Your task to perform on an android device: choose inbox layout in the gmail app Image 0: 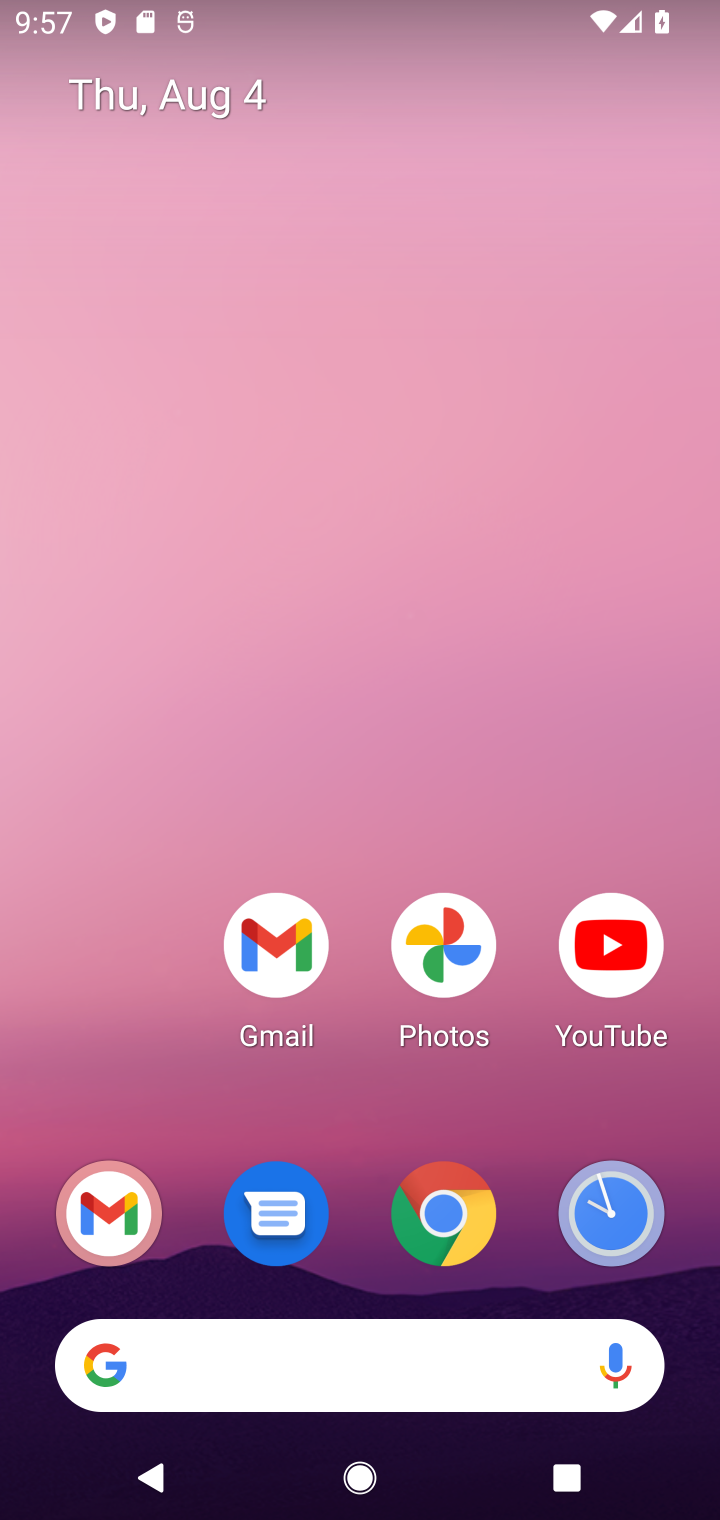
Step 0: click (274, 964)
Your task to perform on an android device: choose inbox layout in the gmail app Image 1: 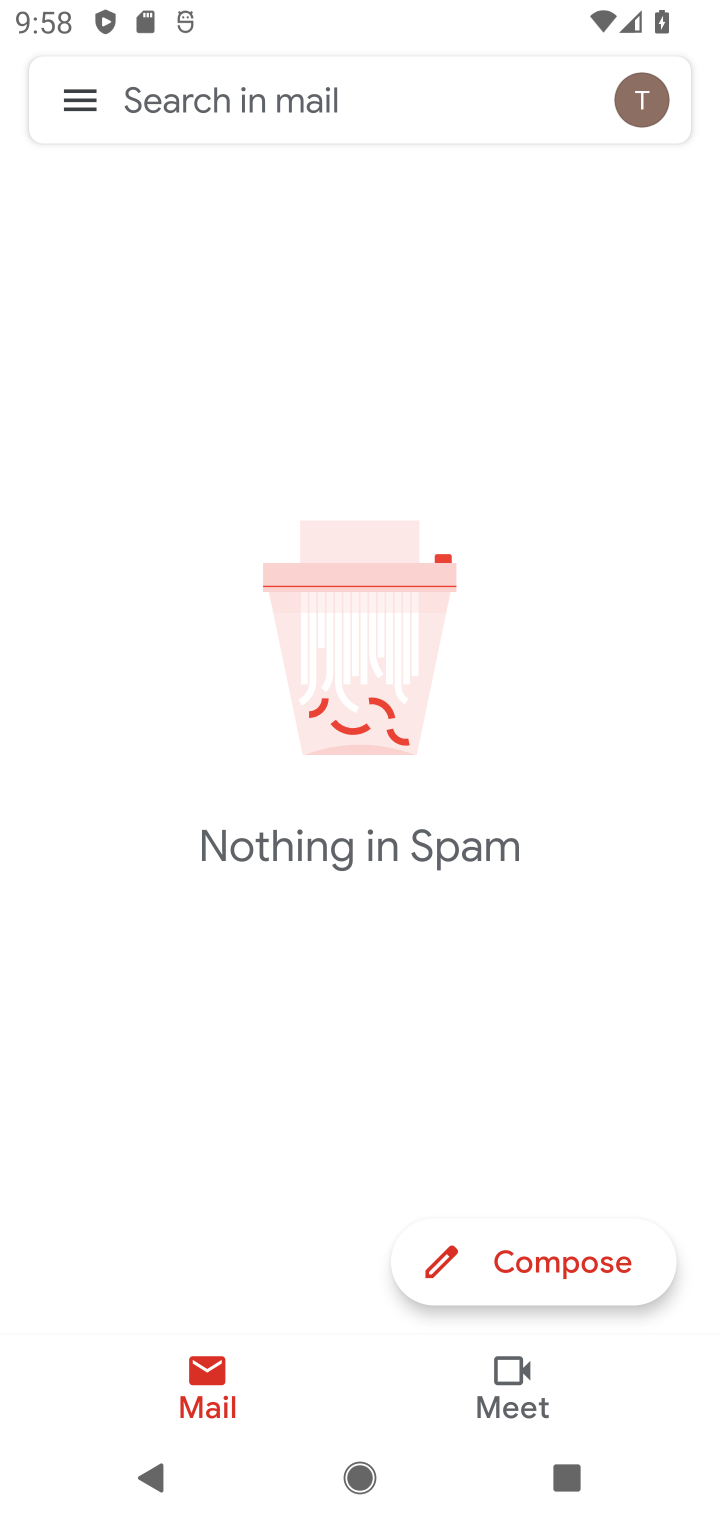
Step 1: click (63, 106)
Your task to perform on an android device: choose inbox layout in the gmail app Image 2: 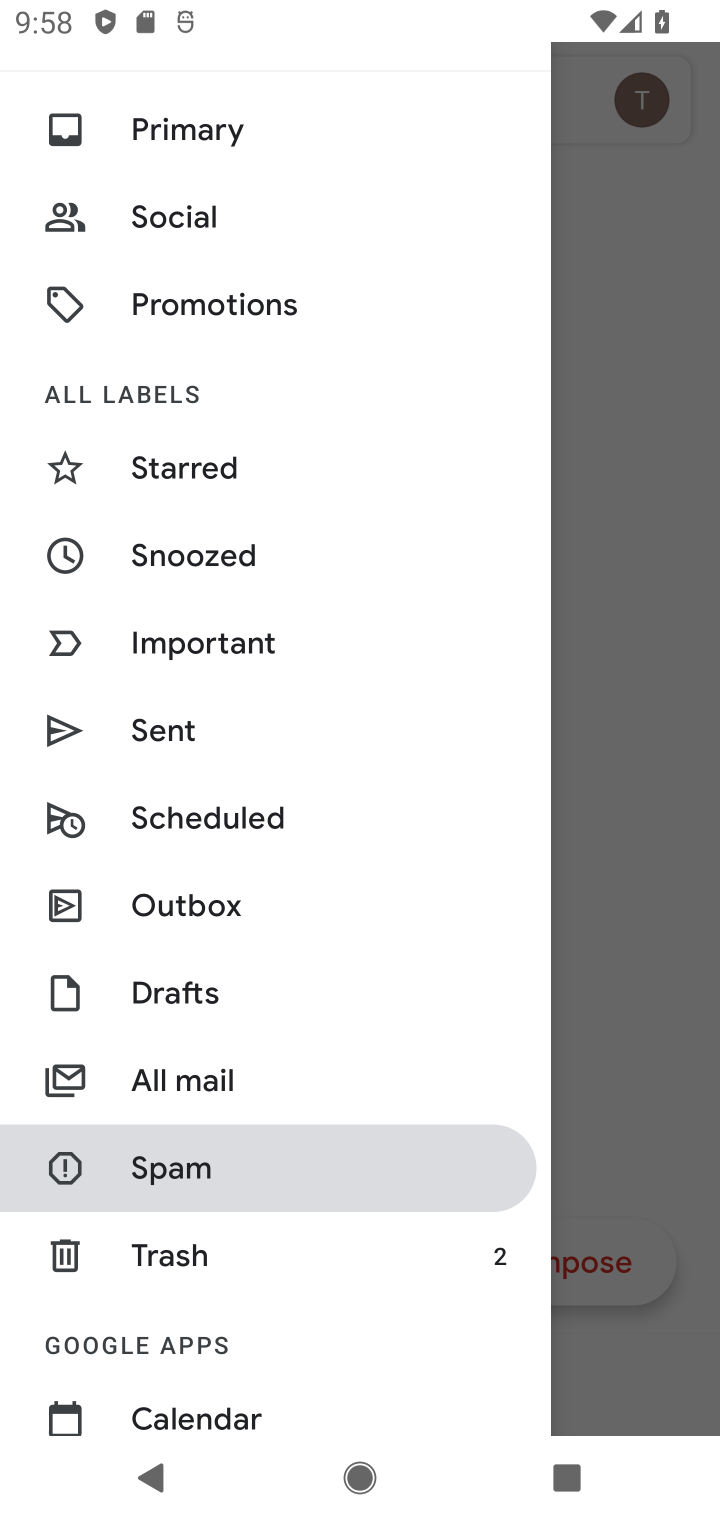
Step 2: drag from (142, 1225) to (228, 325)
Your task to perform on an android device: choose inbox layout in the gmail app Image 3: 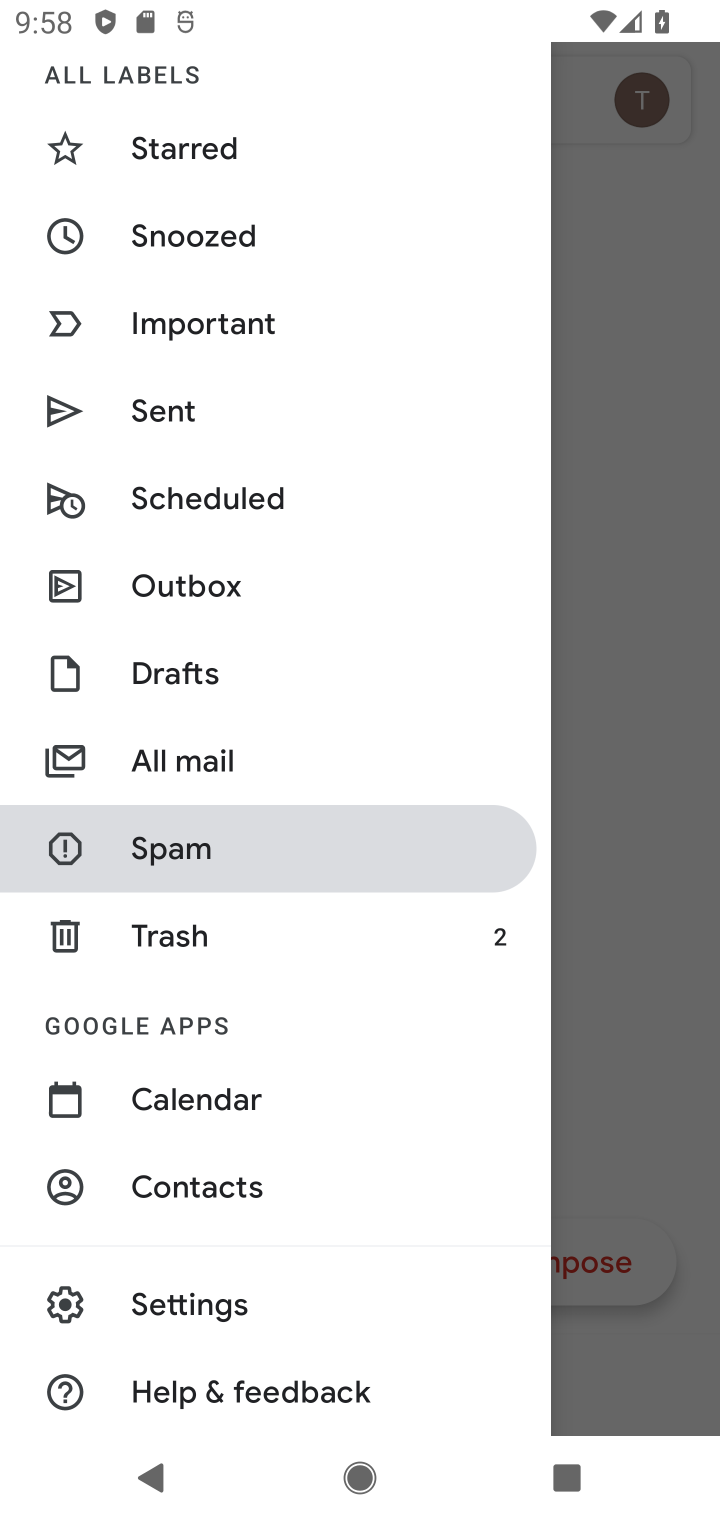
Step 3: click (208, 1310)
Your task to perform on an android device: choose inbox layout in the gmail app Image 4: 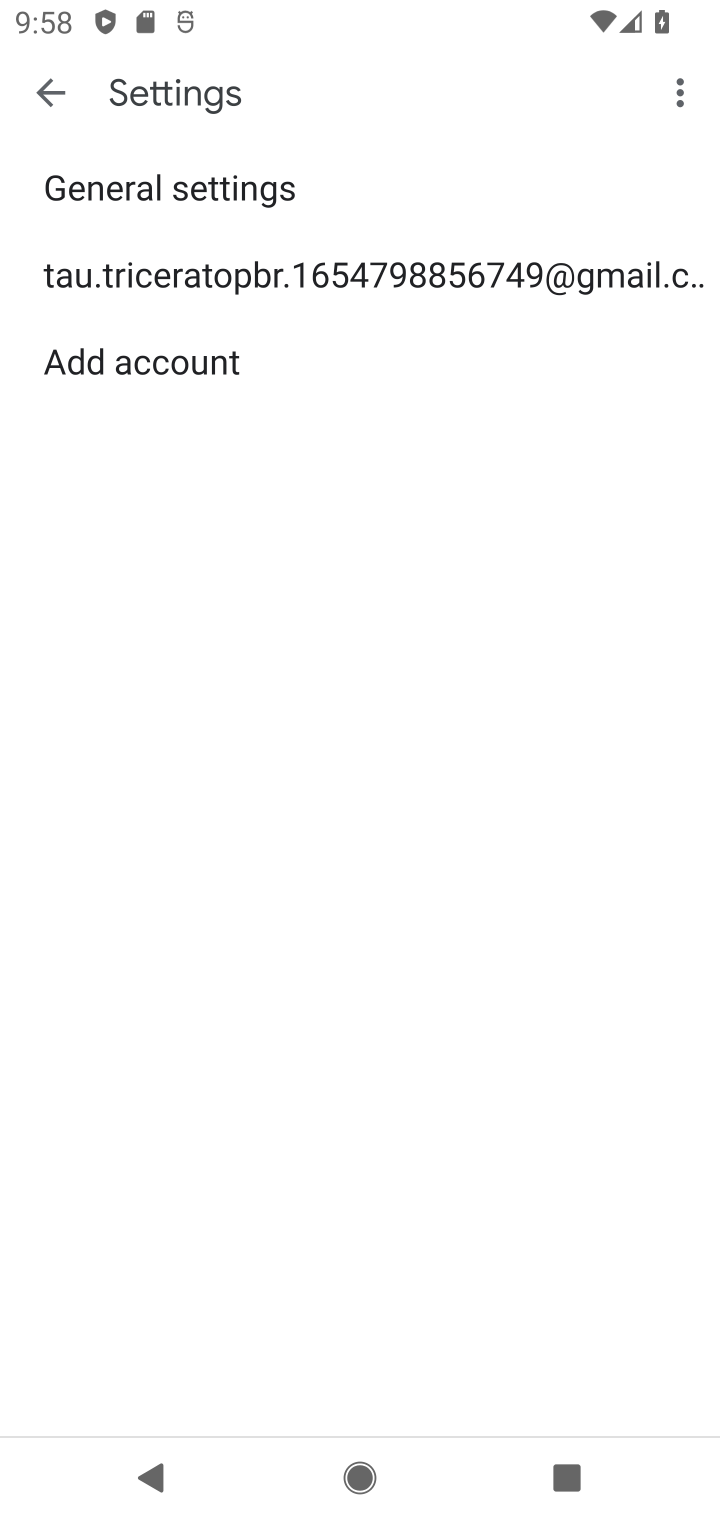
Step 4: click (244, 257)
Your task to perform on an android device: choose inbox layout in the gmail app Image 5: 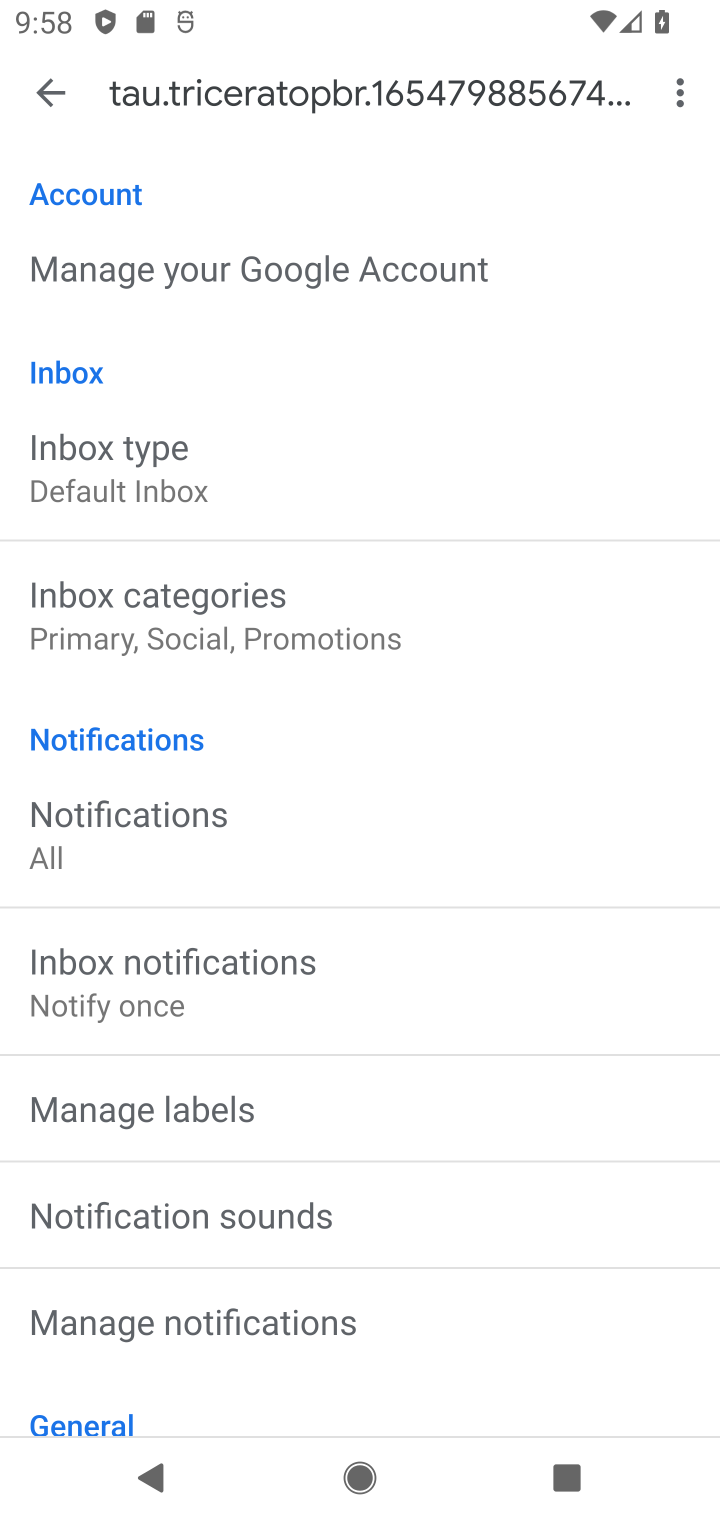
Step 5: click (198, 476)
Your task to perform on an android device: choose inbox layout in the gmail app Image 6: 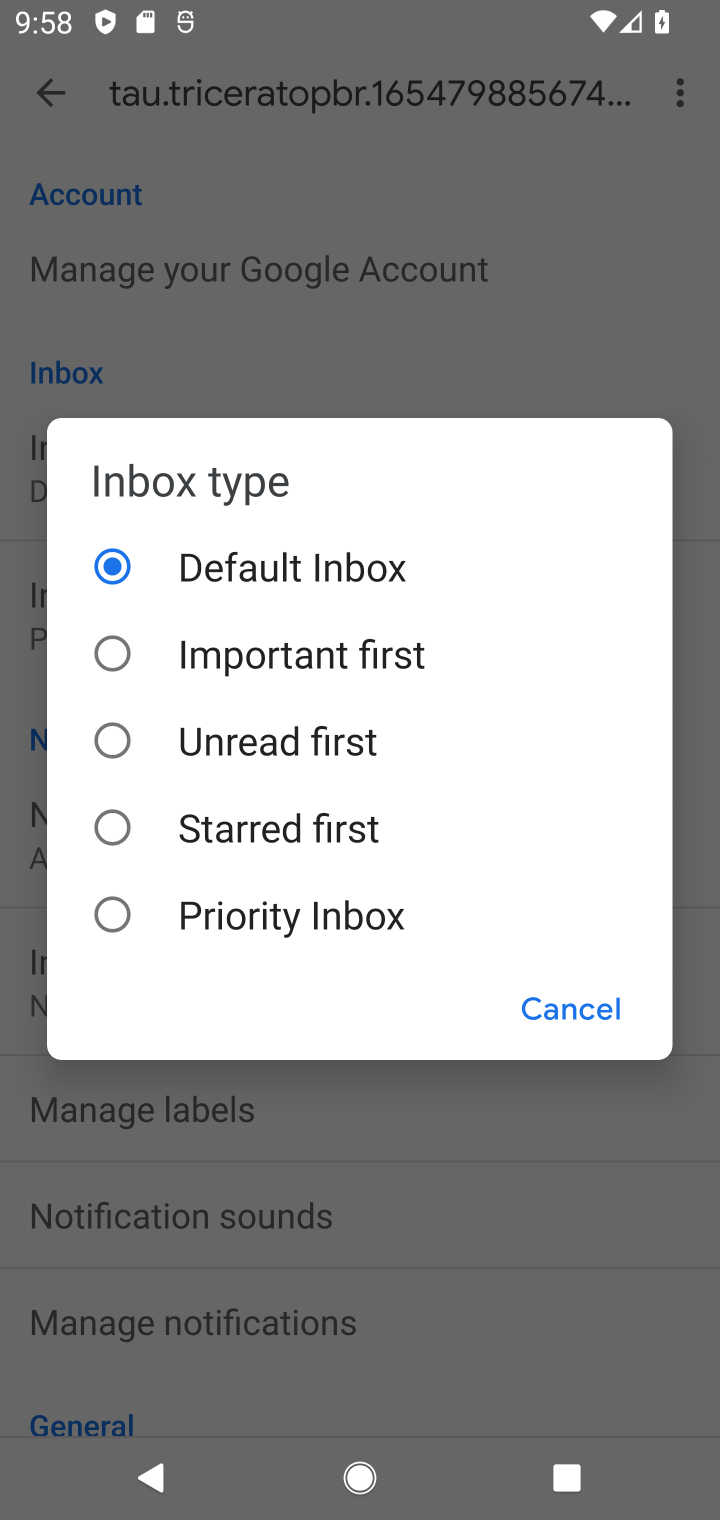
Step 6: click (233, 923)
Your task to perform on an android device: choose inbox layout in the gmail app Image 7: 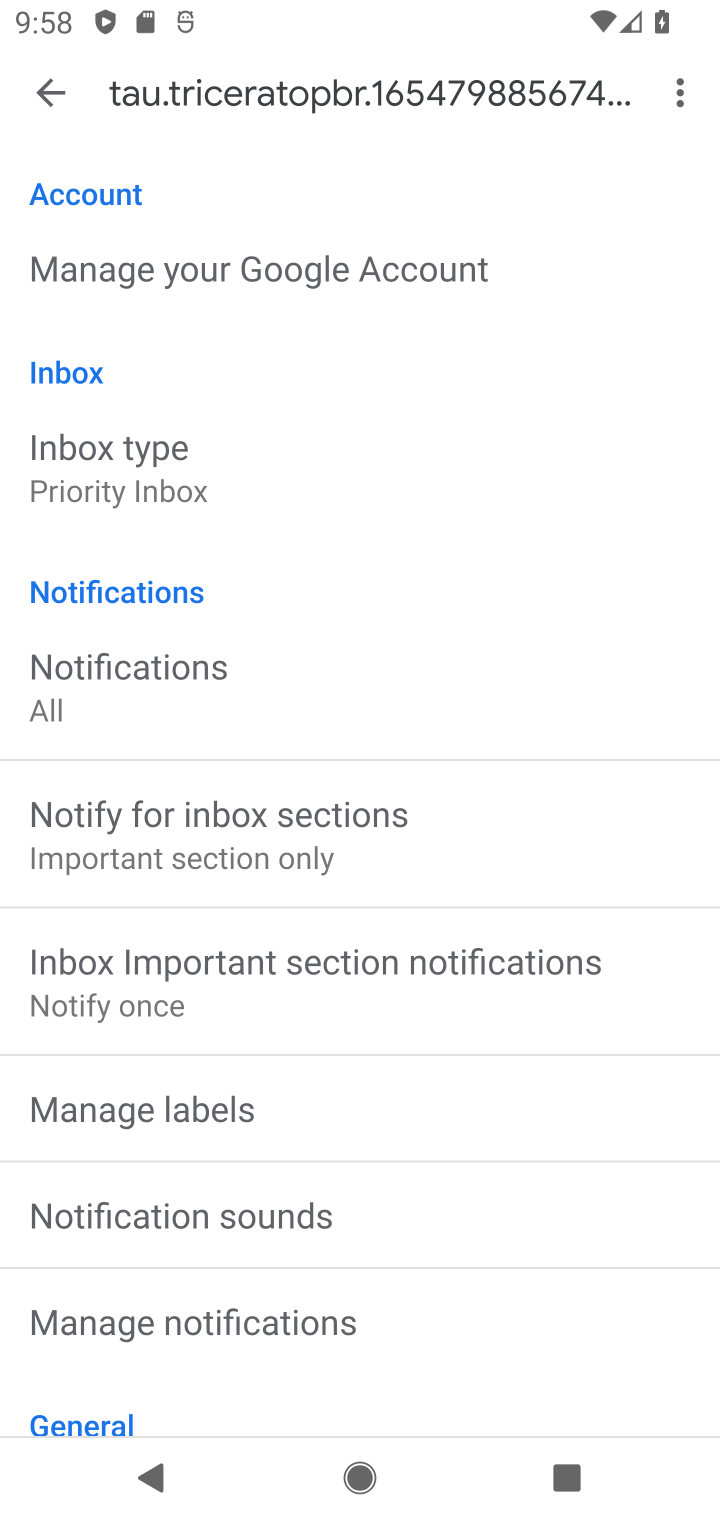
Step 7: task complete